Your task to perform on an android device: When is my next meeting? Image 0: 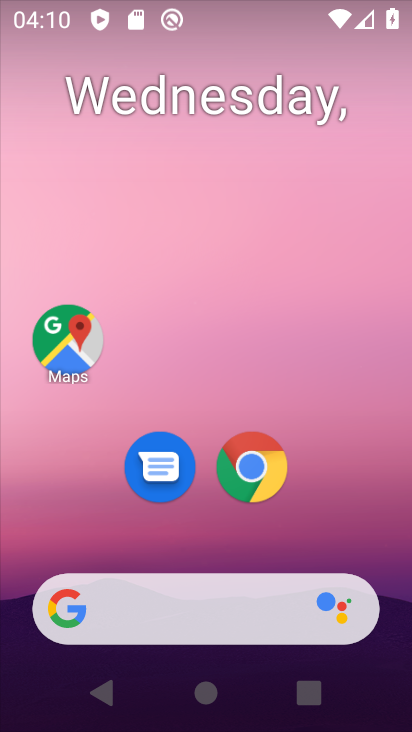
Step 0: drag from (393, 609) to (321, 155)
Your task to perform on an android device: When is my next meeting? Image 1: 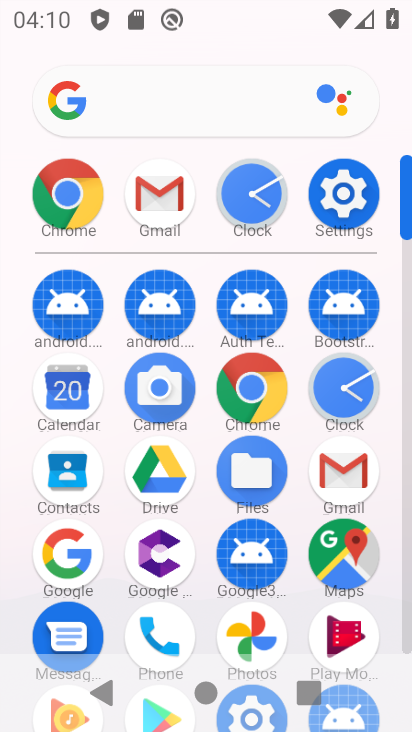
Step 1: click (407, 636)
Your task to perform on an android device: When is my next meeting? Image 2: 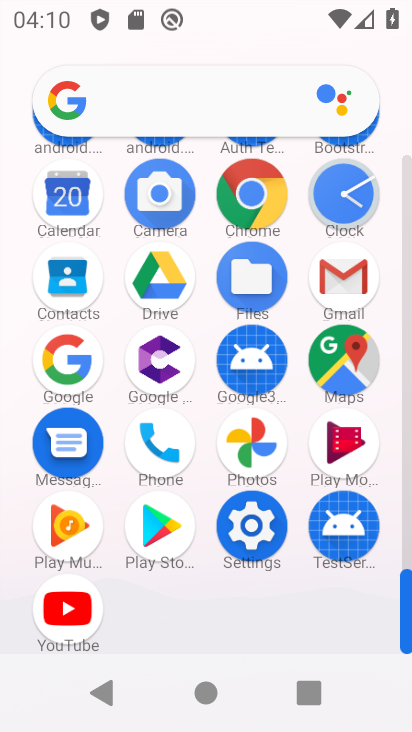
Step 2: click (65, 191)
Your task to perform on an android device: When is my next meeting? Image 3: 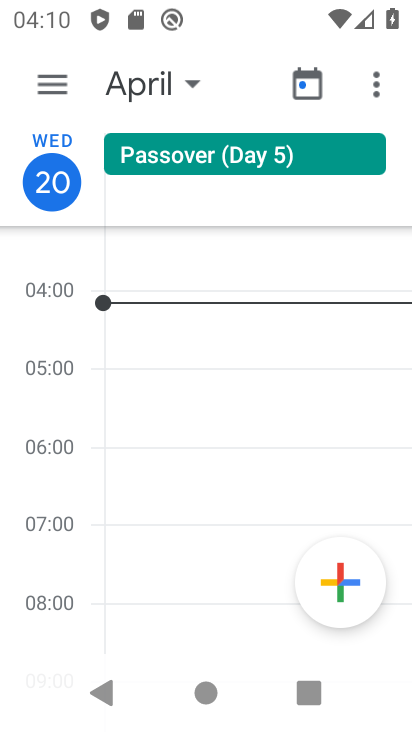
Step 3: click (59, 85)
Your task to perform on an android device: When is my next meeting? Image 4: 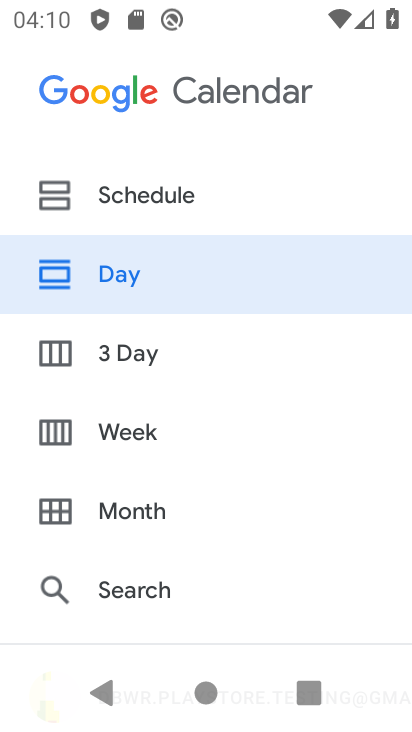
Step 4: click (135, 192)
Your task to perform on an android device: When is my next meeting? Image 5: 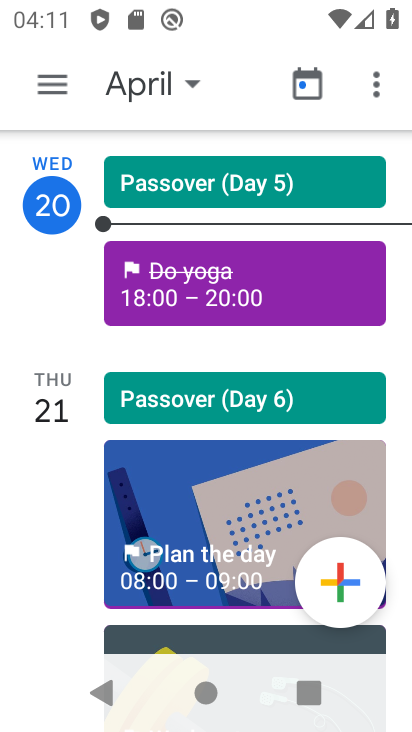
Step 5: task complete